Your task to perform on an android device: Open Yahoo.com Image 0: 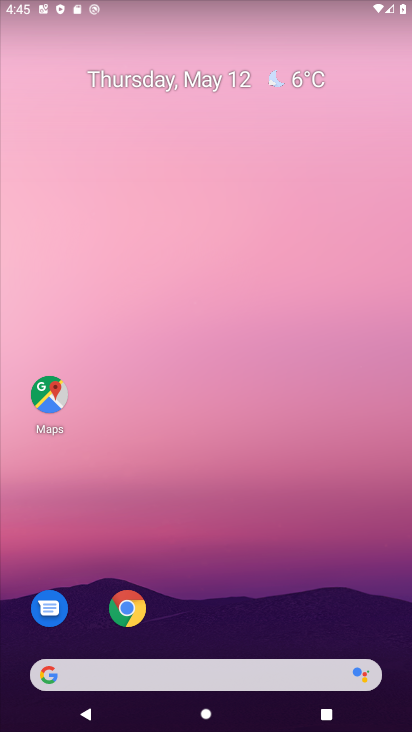
Step 0: click (126, 603)
Your task to perform on an android device: Open Yahoo.com Image 1: 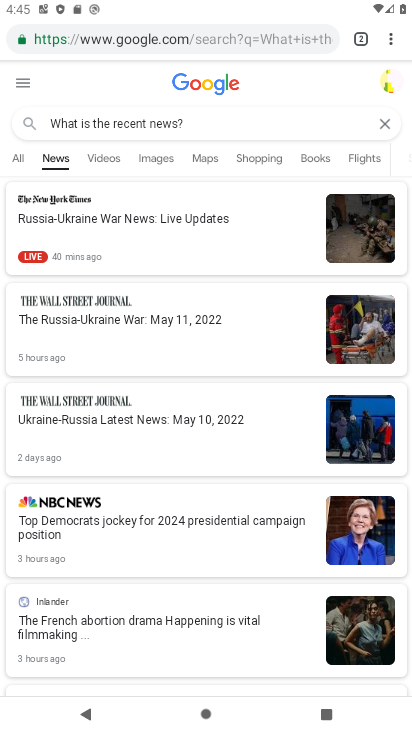
Step 1: click (387, 123)
Your task to perform on an android device: Open Yahoo.com Image 2: 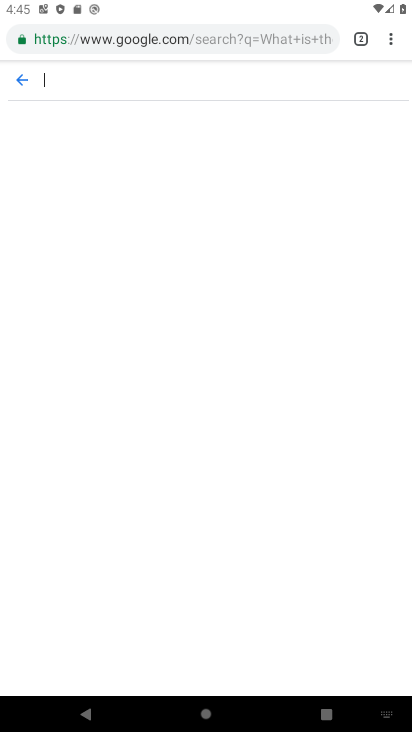
Step 2: click (138, 35)
Your task to perform on an android device: Open Yahoo.com Image 3: 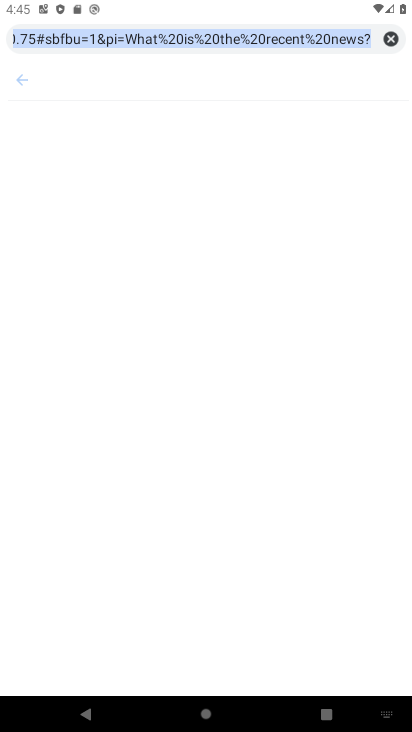
Step 3: click (392, 43)
Your task to perform on an android device: Open Yahoo.com Image 4: 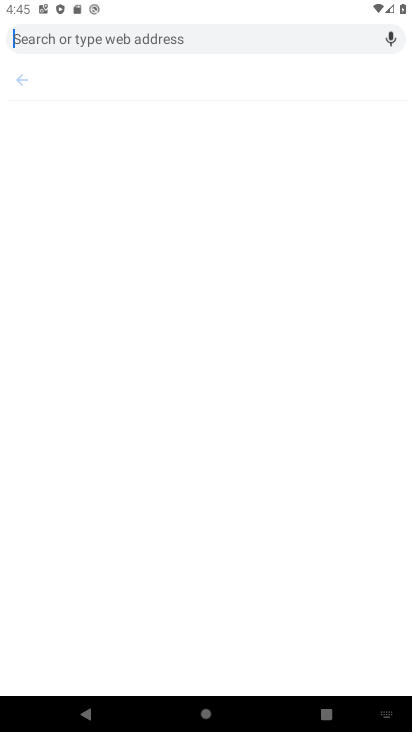
Step 4: type " Yahoo.com"
Your task to perform on an android device: Open Yahoo.com Image 5: 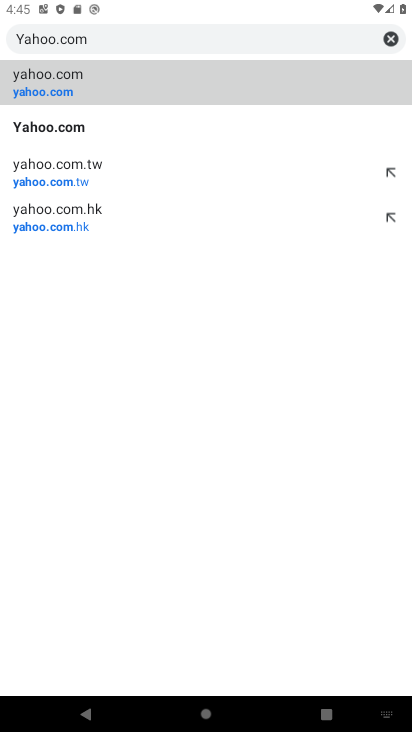
Step 5: click (28, 89)
Your task to perform on an android device: Open Yahoo.com Image 6: 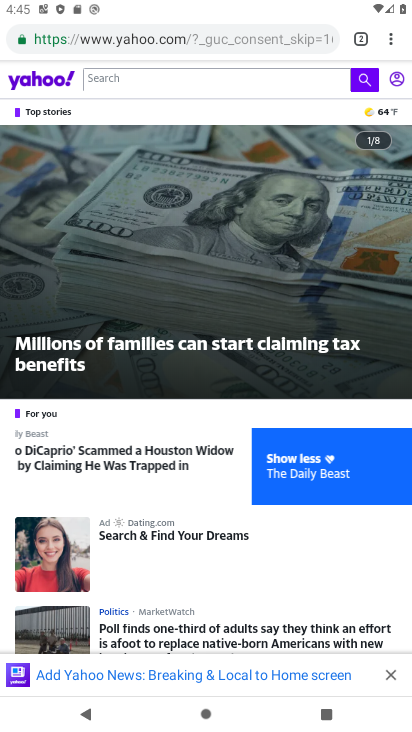
Step 6: task complete